Your task to perform on an android device: turn notification dots off Image 0: 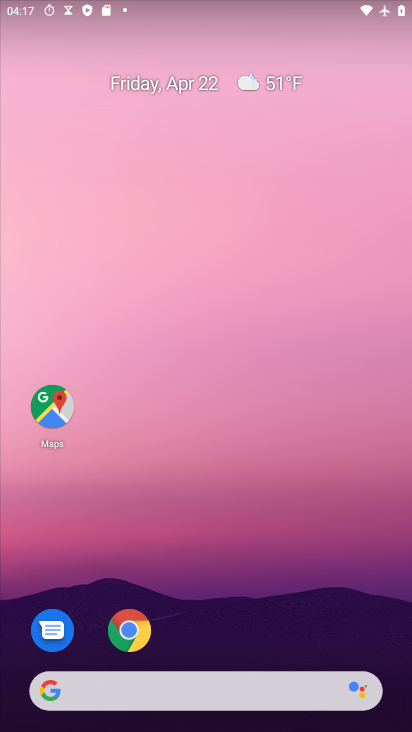
Step 0: drag from (363, 528) to (315, 90)
Your task to perform on an android device: turn notification dots off Image 1: 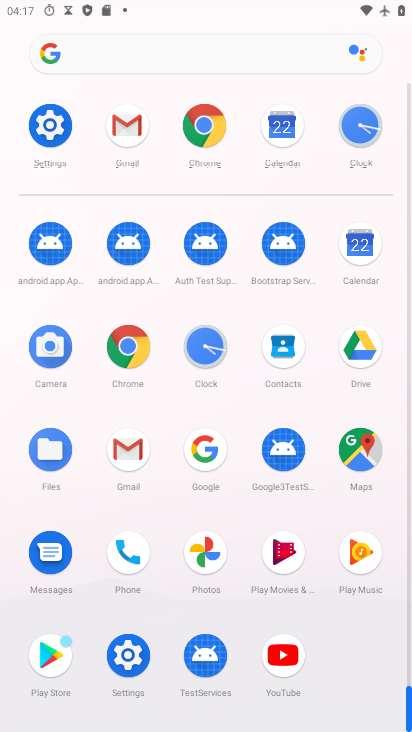
Step 1: drag from (6, 501) to (15, 232)
Your task to perform on an android device: turn notification dots off Image 2: 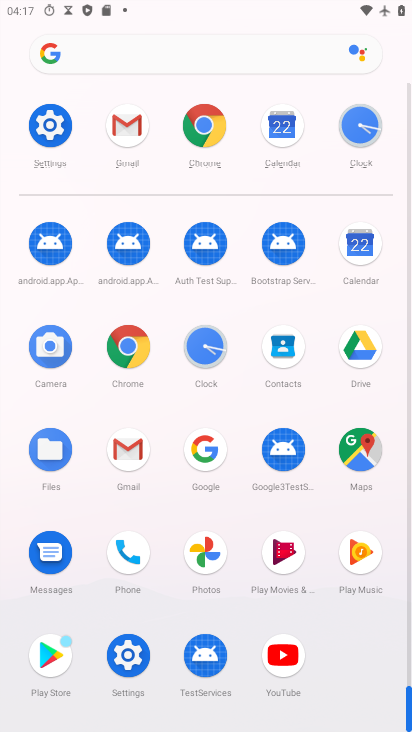
Step 2: click (122, 652)
Your task to perform on an android device: turn notification dots off Image 3: 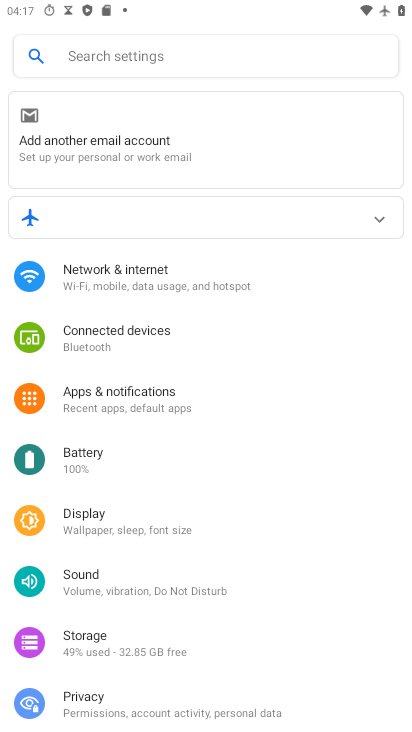
Step 3: drag from (190, 490) to (253, 277)
Your task to perform on an android device: turn notification dots off Image 4: 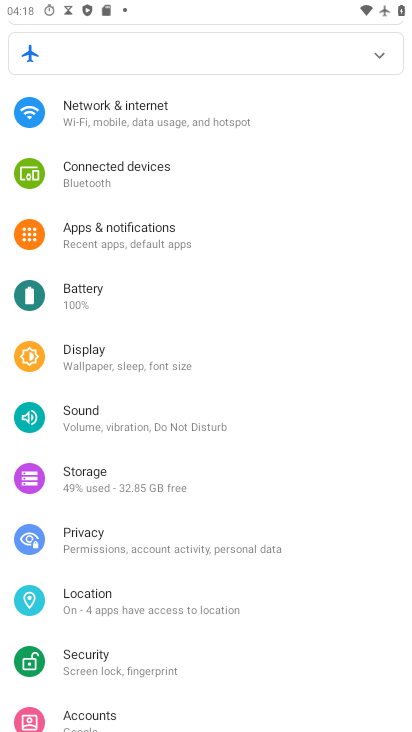
Step 4: click (150, 225)
Your task to perform on an android device: turn notification dots off Image 5: 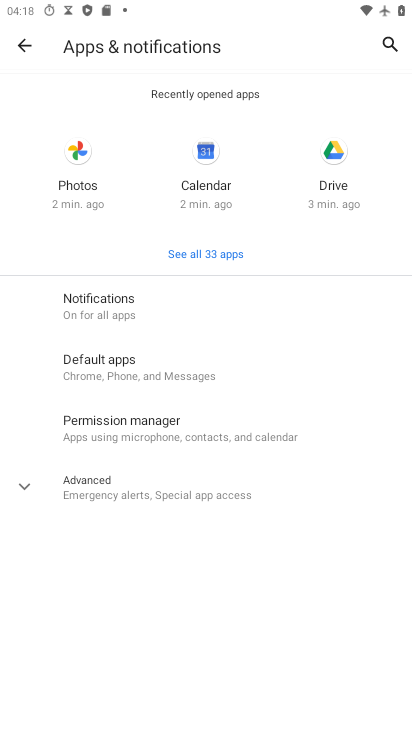
Step 5: click (181, 313)
Your task to perform on an android device: turn notification dots off Image 6: 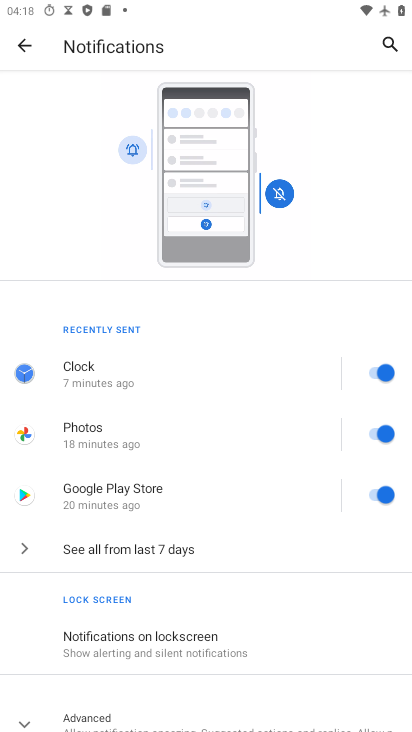
Step 6: drag from (190, 609) to (302, 191)
Your task to perform on an android device: turn notification dots off Image 7: 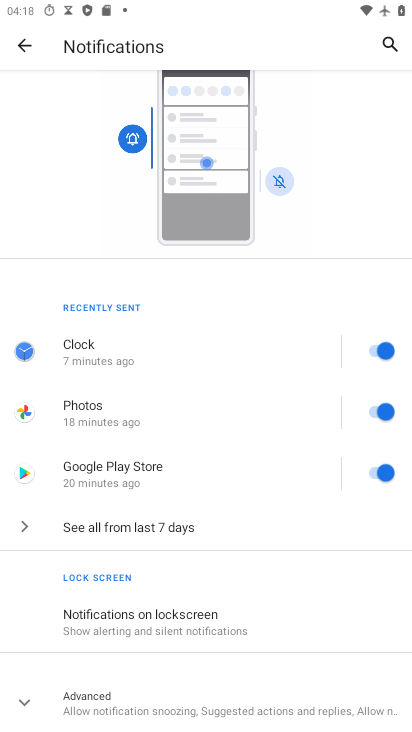
Step 7: drag from (280, 493) to (274, 139)
Your task to perform on an android device: turn notification dots off Image 8: 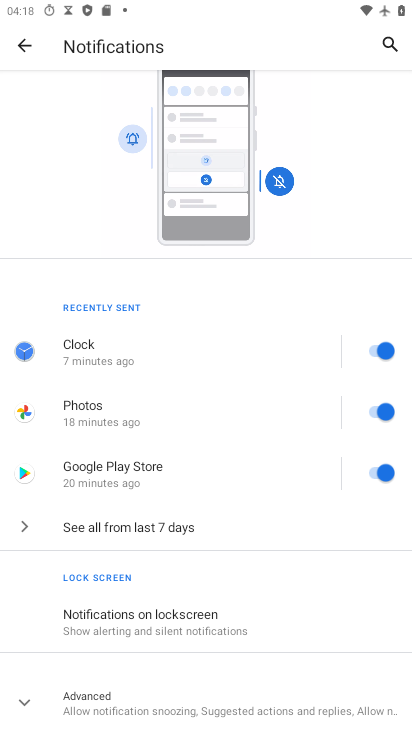
Step 8: drag from (231, 558) to (279, 164)
Your task to perform on an android device: turn notification dots off Image 9: 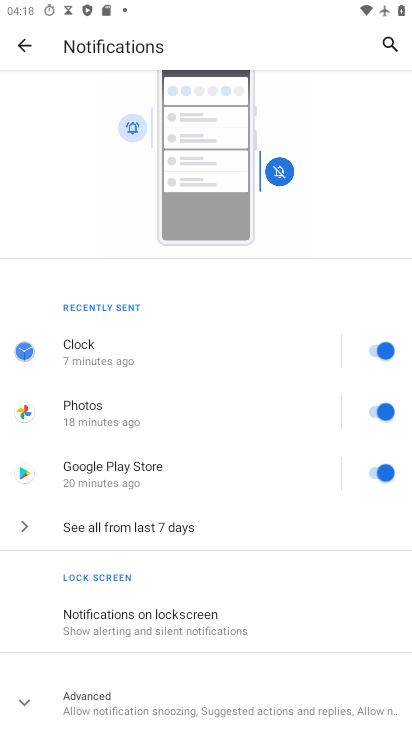
Step 9: click (50, 693)
Your task to perform on an android device: turn notification dots off Image 10: 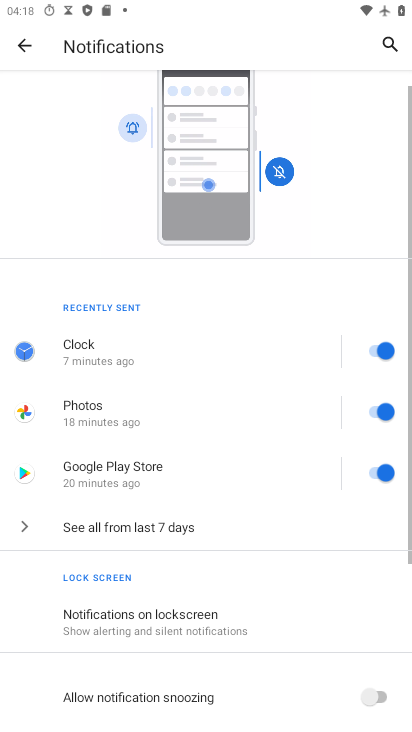
Step 10: drag from (173, 674) to (245, 289)
Your task to perform on an android device: turn notification dots off Image 11: 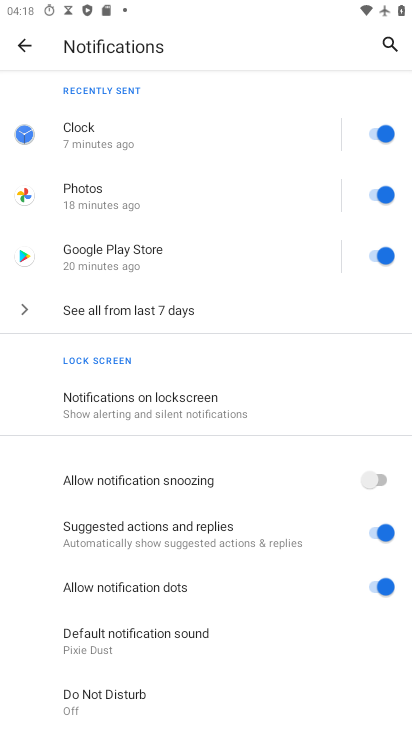
Step 11: click (383, 580)
Your task to perform on an android device: turn notification dots off Image 12: 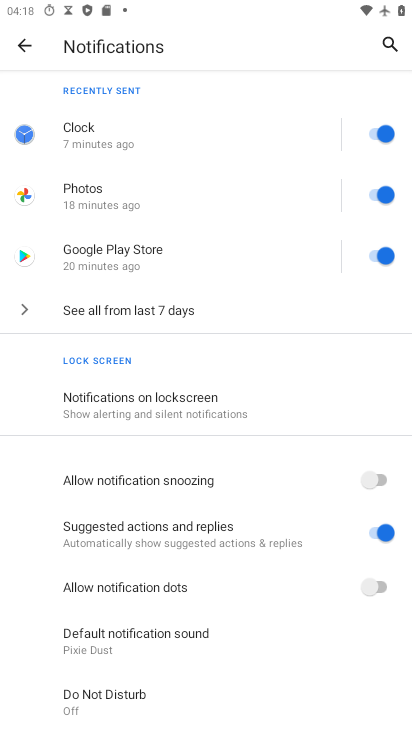
Step 12: task complete